Your task to perform on an android device: Open Google Chrome and open the bookmarks view Image 0: 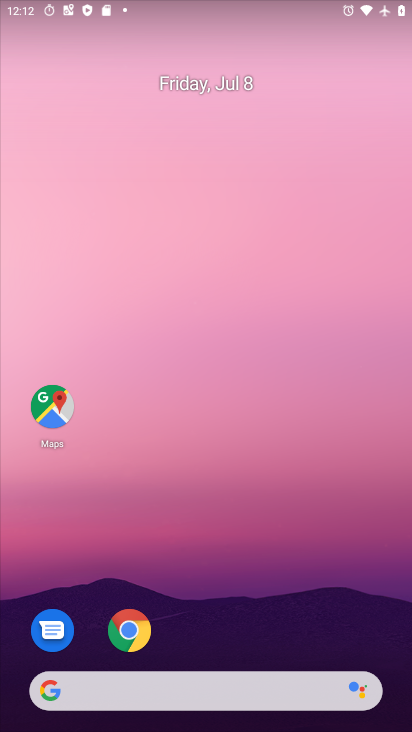
Step 0: click (126, 617)
Your task to perform on an android device: Open Google Chrome and open the bookmarks view Image 1: 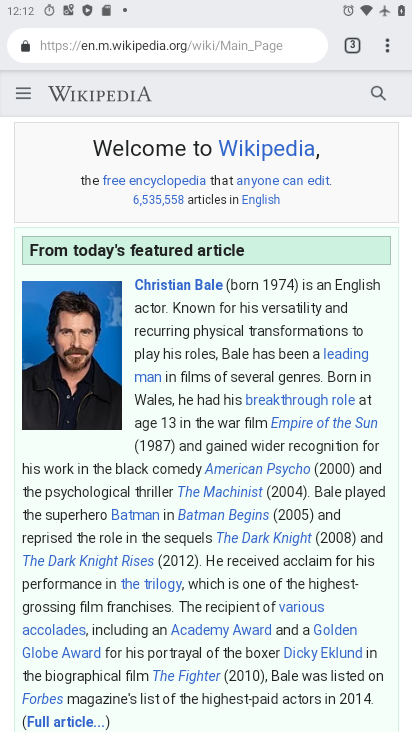
Step 1: click (383, 47)
Your task to perform on an android device: Open Google Chrome and open the bookmarks view Image 2: 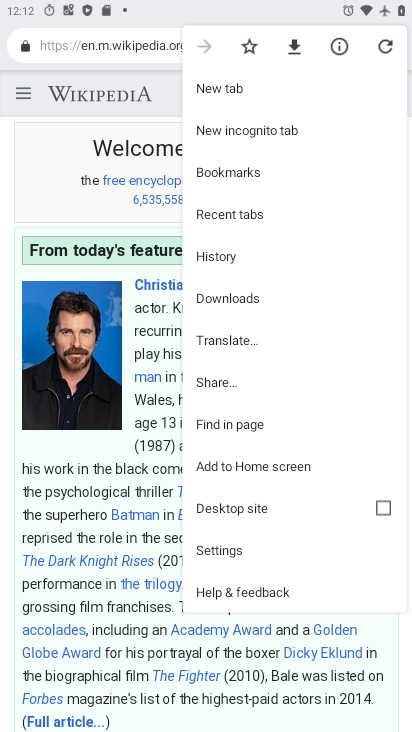
Step 2: click (295, 174)
Your task to perform on an android device: Open Google Chrome and open the bookmarks view Image 3: 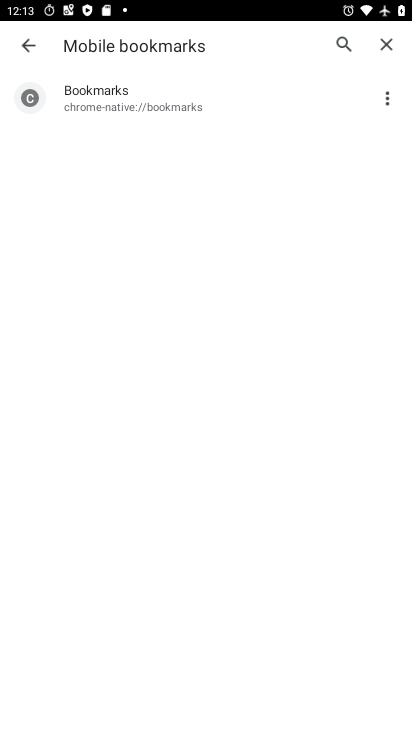
Step 3: press home button
Your task to perform on an android device: Open Google Chrome and open the bookmarks view Image 4: 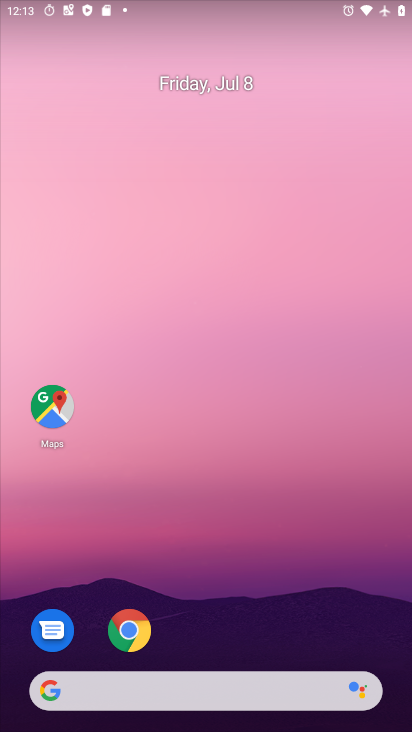
Step 4: click (133, 638)
Your task to perform on an android device: Open Google Chrome and open the bookmarks view Image 5: 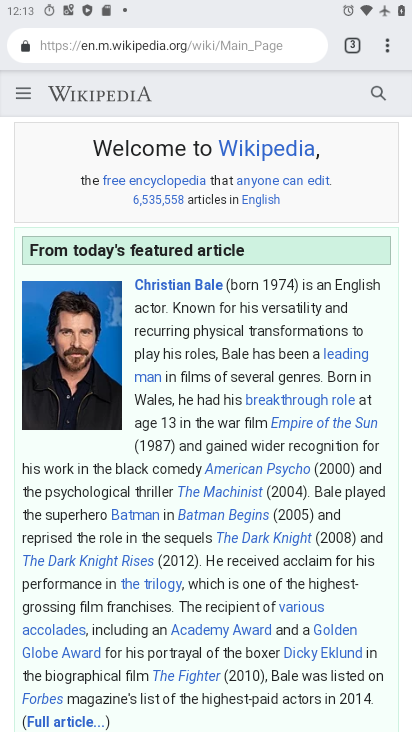
Step 5: click (392, 50)
Your task to perform on an android device: Open Google Chrome and open the bookmarks view Image 6: 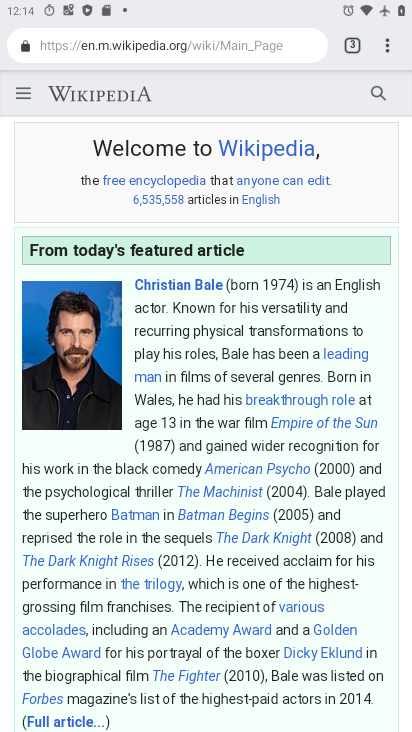
Step 6: click (386, 58)
Your task to perform on an android device: Open Google Chrome and open the bookmarks view Image 7: 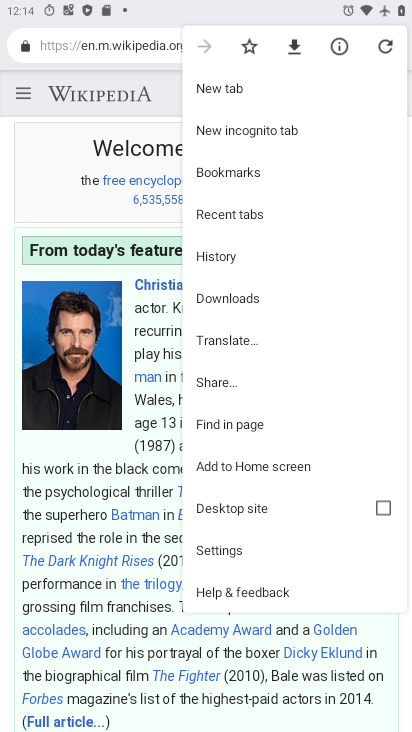
Step 7: click (266, 171)
Your task to perform on an android device: Open Google Chrome and open the bookmarks view Image 8: 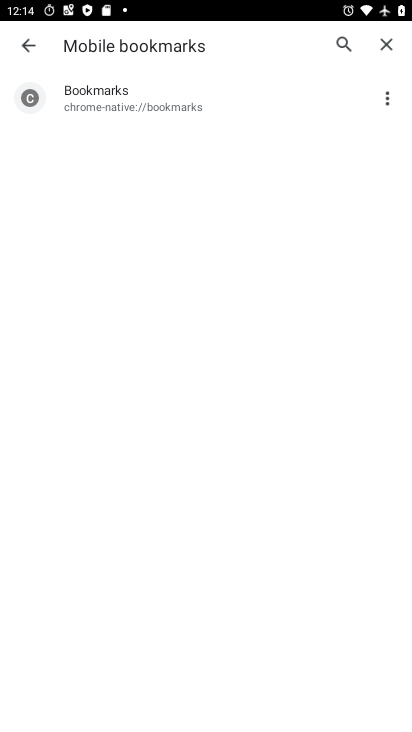
Step 8: task complete